Your task to perform on an android device: empty trash in google photos Image 0: 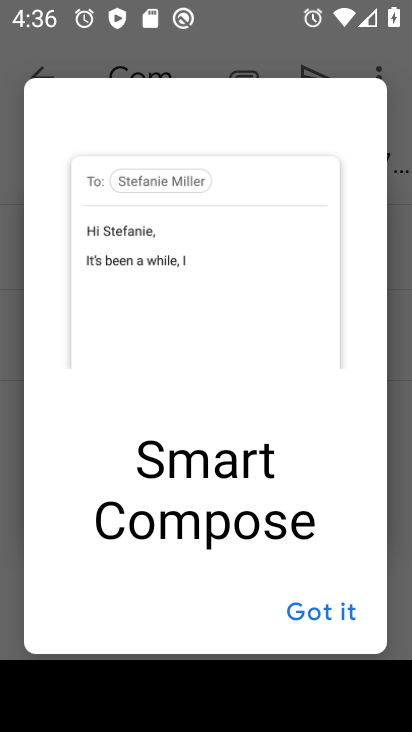
Step 0: press home button
Your task to perform on an android device: empty trash in google photos Image 1: 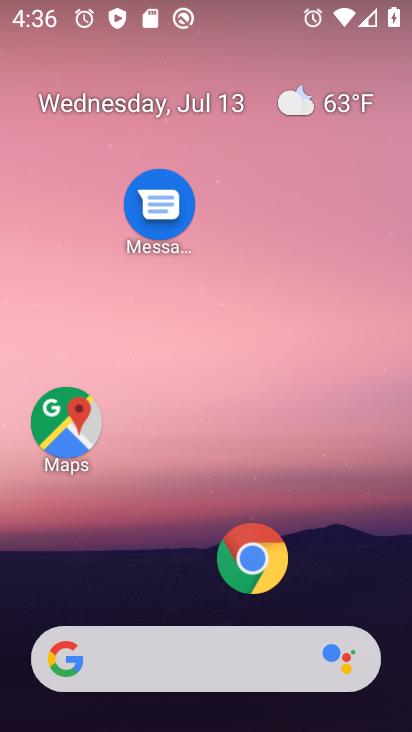
Step 1: drag from (175, 622) to (214, 208)
Your task to perform on an android device: empty trash in google photos Image 2: 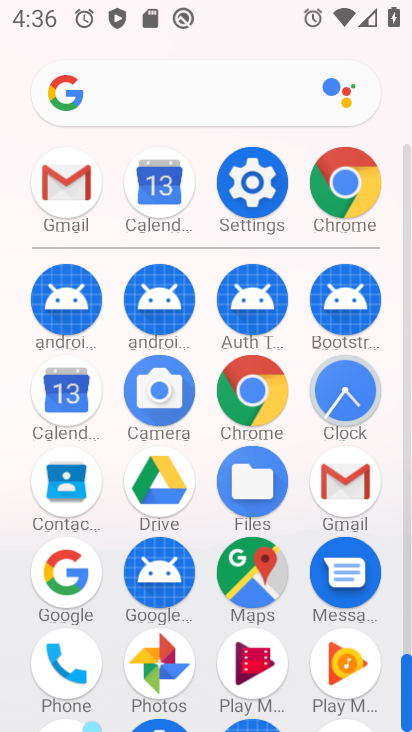
Step 2: click (168, 666)
Your task to perform on an android device: empty trash in google photos Image 3: 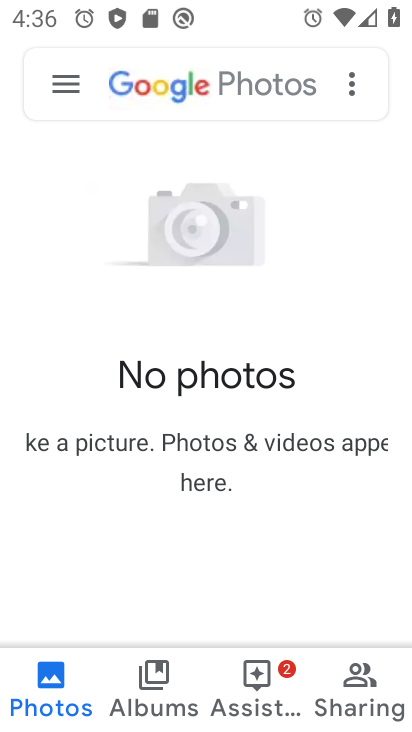
Step 3: click (60, 86)
Your task to perform on an android device: empty trash in google photos Image 4: 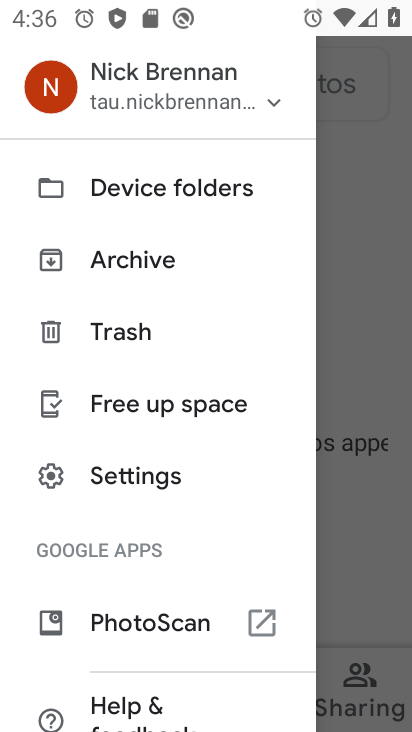
Step 4: click (110, 336)
Your task to perform on an android device: empty trash in google photos Image 5: 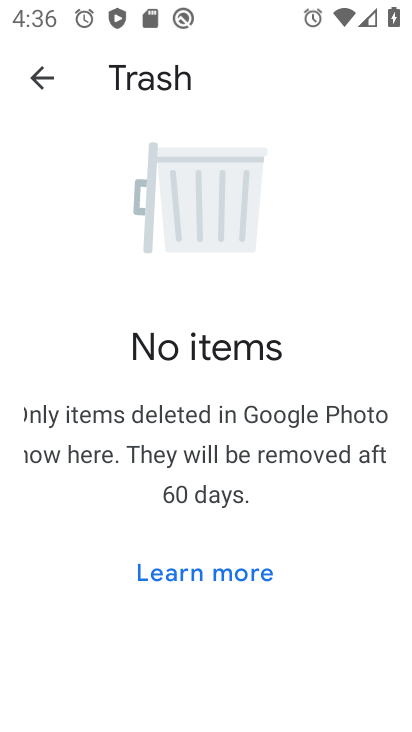
Step 5: task complete